Your task to perform on an android device: turn on wifi Image 0: 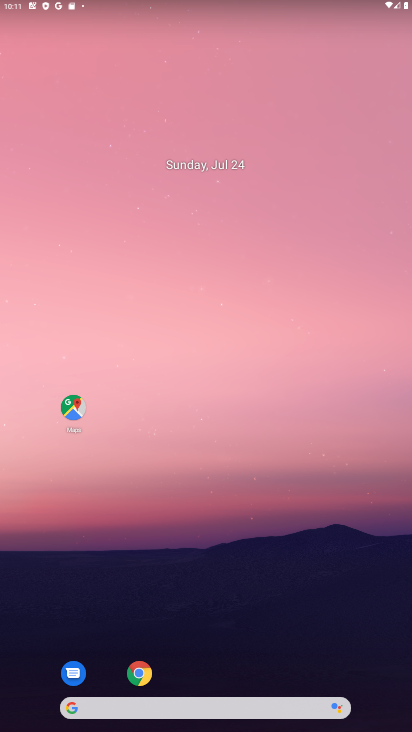
Step 0: drag from (23, 690) to (298, 237)
Your task to perform on an android device: turn on wifi Image 1: 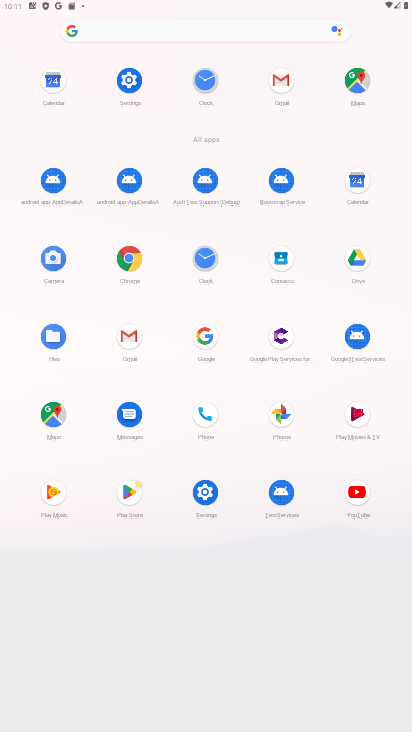
Step 1: click (209, 488)
Your task to perform on an android device: turn on wifi Image 2: 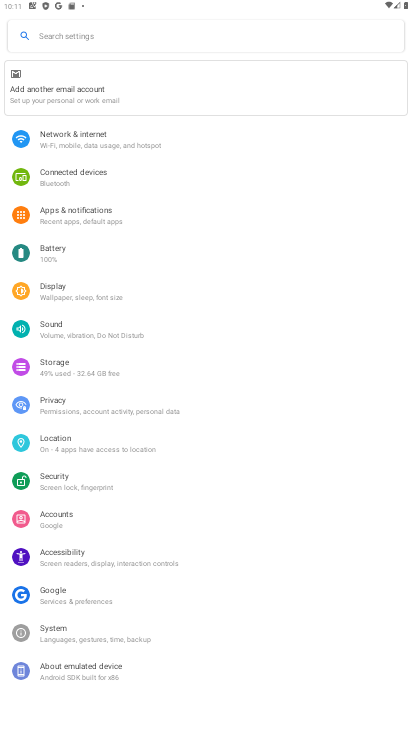
Step 2: click (93, 139)
Your task to perform on an android device: turn on wifi Image 3: 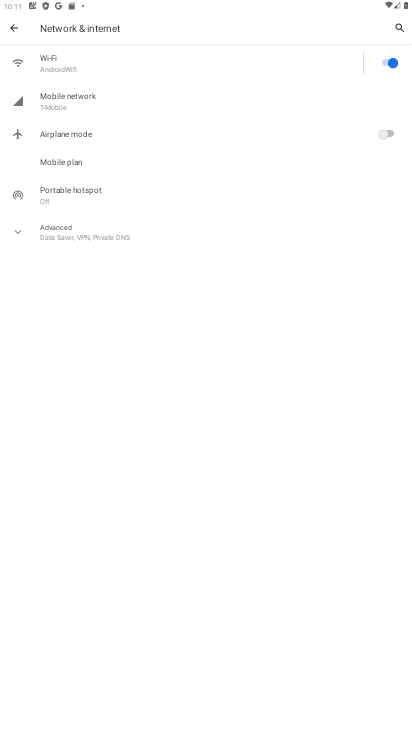
Step 3: task complete